Your task to perform on an android device: Go to Google Image 0: 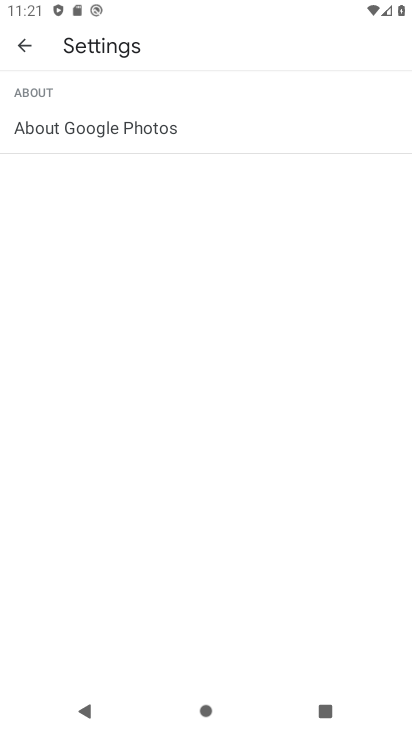
Step 0: press home button
Your task to perform on an android device: Go to Google Image 1: 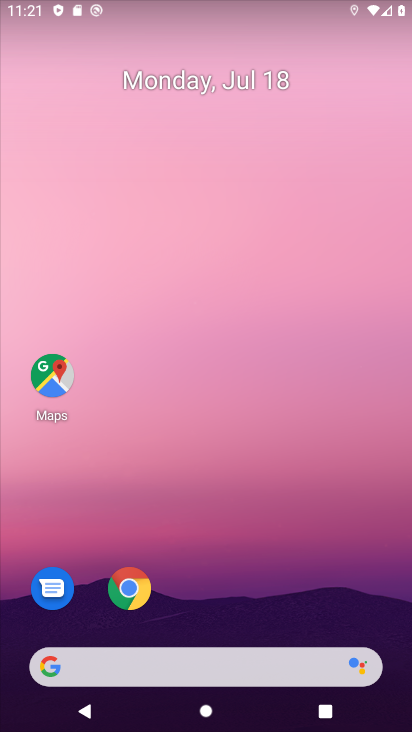
Step 1: drag from (273, 619) to (291, 22)
Your task to perform on an android device: Go to Google Image 2: 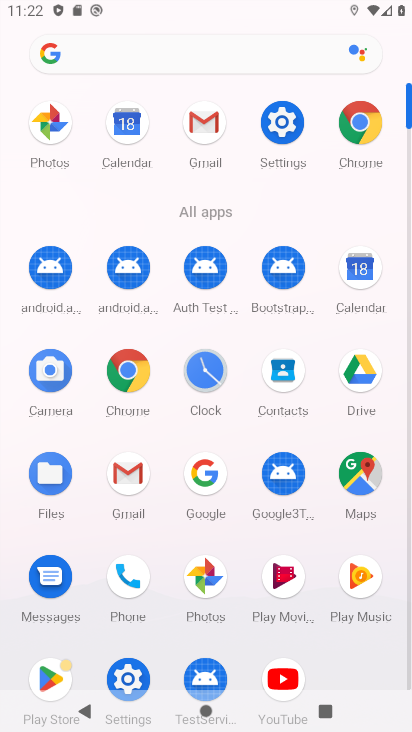
Step 2: click (209, 466)
Your task to perform on an android device: Go to Google Image 3: 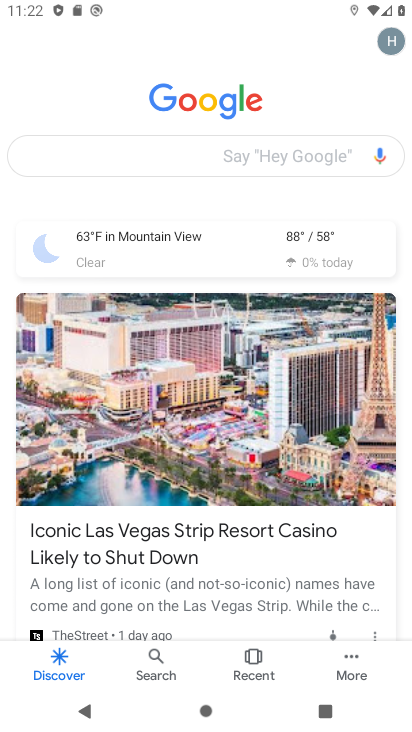
Step 3: task complete